Your task to perform on an android device: Go to CNN.com Image 0: 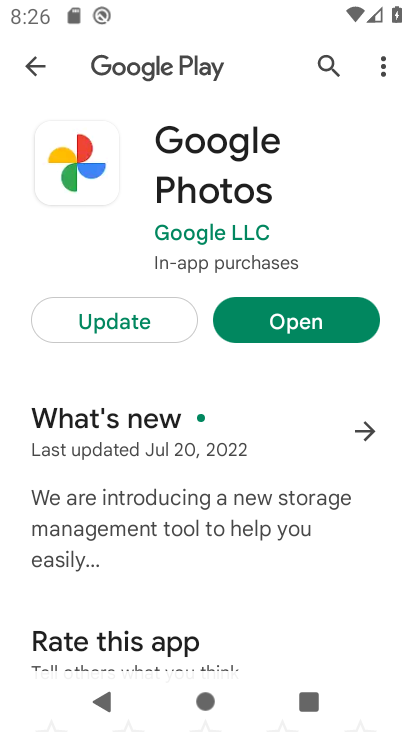
Step 0: press home button
Your task to perform on an android device: Go to CNN.com Image 1: 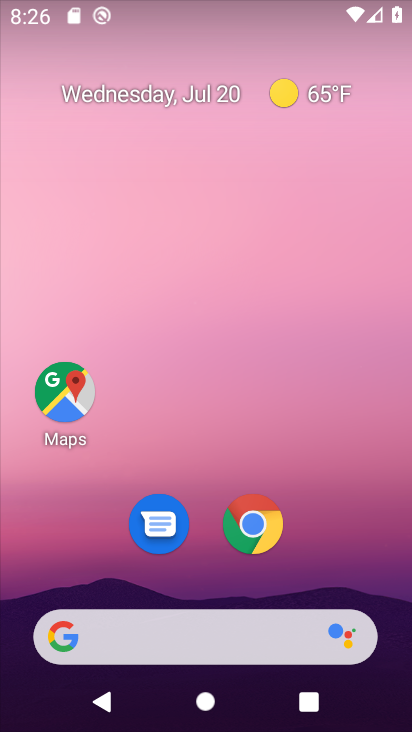
Step 1: click (254, 632)
Your task to perform on an android device: Go to CNN.com Image 2: 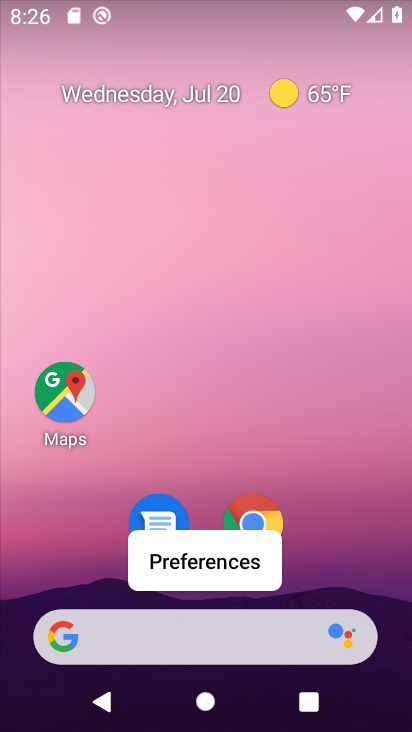
Step 2: click (111, 644)
Your task to perform on an android device: Go to CNN.com Image 3: 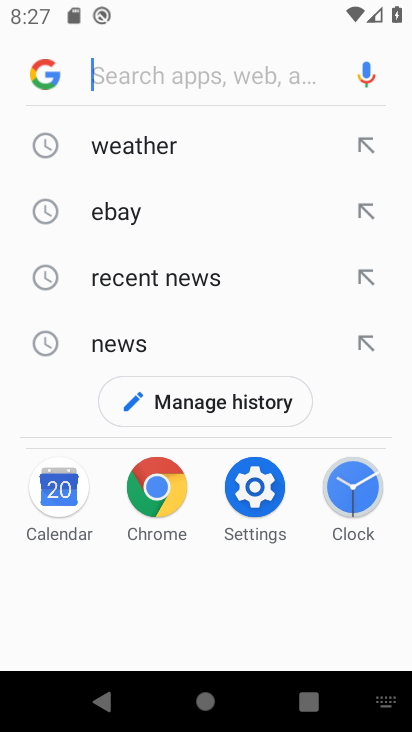
Step 3: type "cnn.com"
Your task to perform on an android device: Go to CNN.com Image 4: 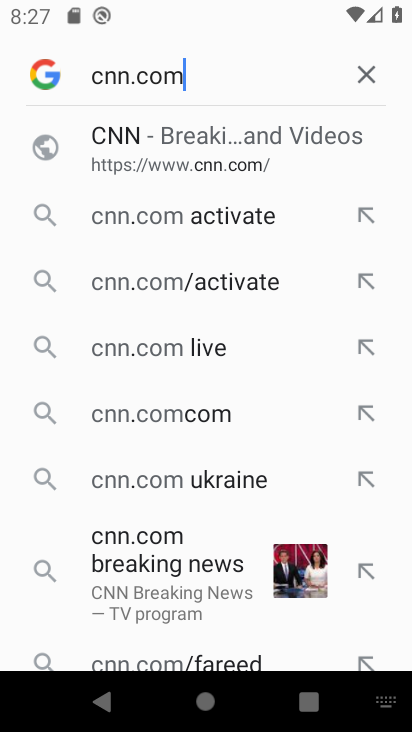
Step 4: click (214, 161)
Your task to perform on an android device: Go to CNN.com Image 5: 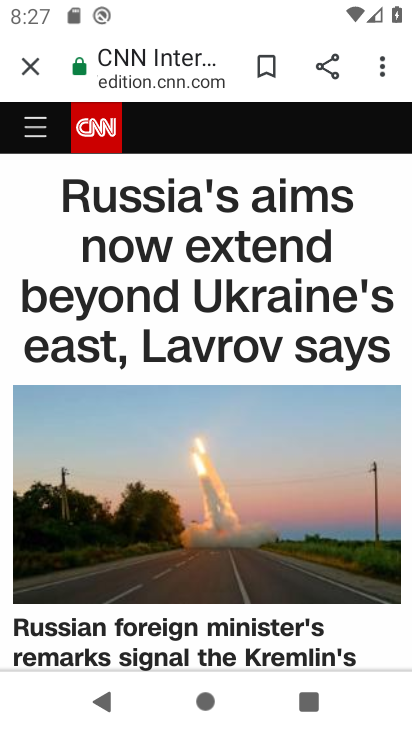
Step 5: task complete